Your task to perform on an android device: When is my next appointment? Image 0: 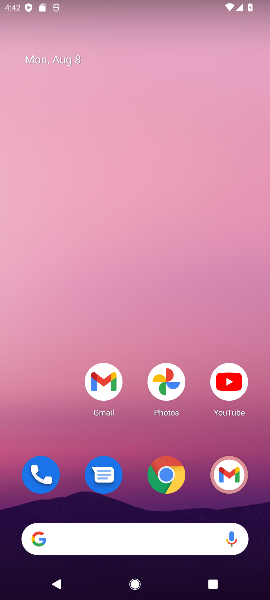
Step 0: press home button
Your task to perform on an android device: When is my next appointment? Image 1: 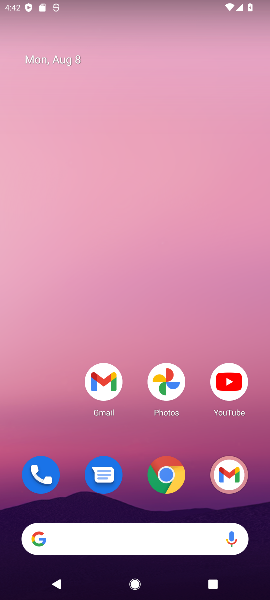
Step 1: drag from (63, 446) to (55, 214)
Your task to perform on an android device: When is my next appointment? Image 2: 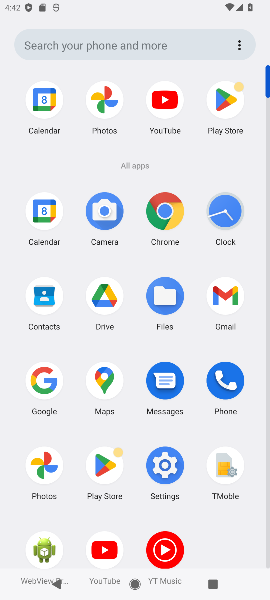
Step 2: click (44, 209)
Your task to perform on an android device: When is my next appointment? Image 3: 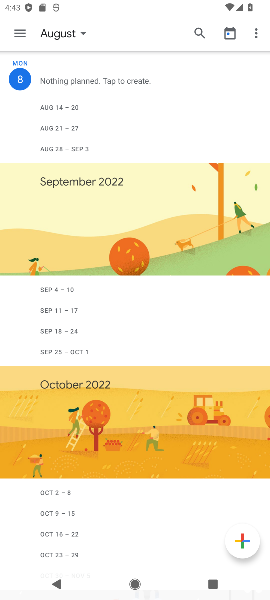
Step 3: task complete